Your task to perform on an android device: Open notification settings Image 0: 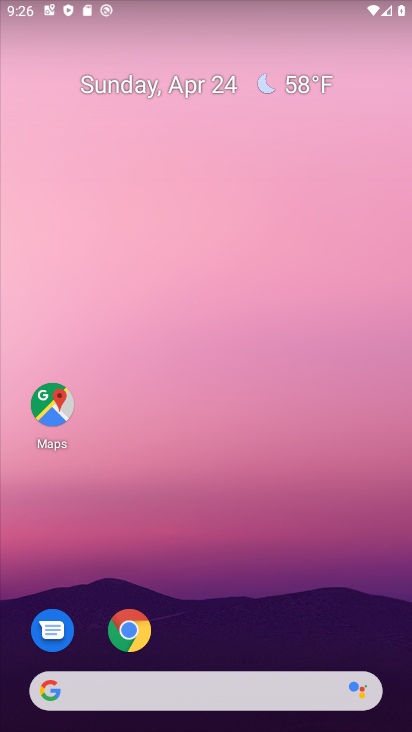
Step 0: drag from (145, 621) to (144, 182)
Your task to perform on an android device: Open notification settings Image 1: 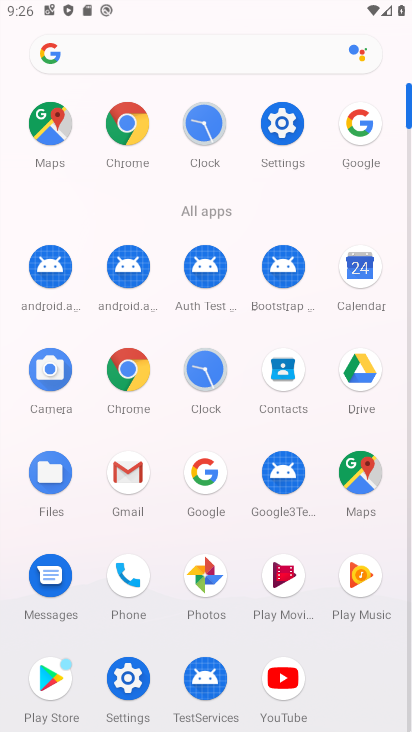
Step 1: click (279, 112)
Your task to perform on an android device: Open notification settings Image 2: 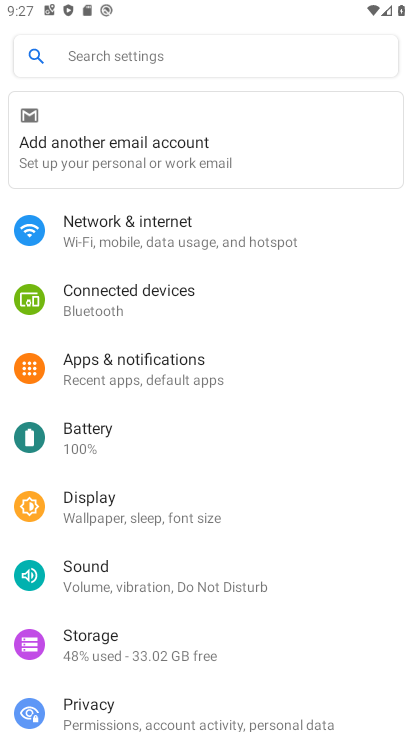
Step 2: drag from (137, 563) to (197, 378)
Your task to perform on an android device: Open notification settings Image 3: 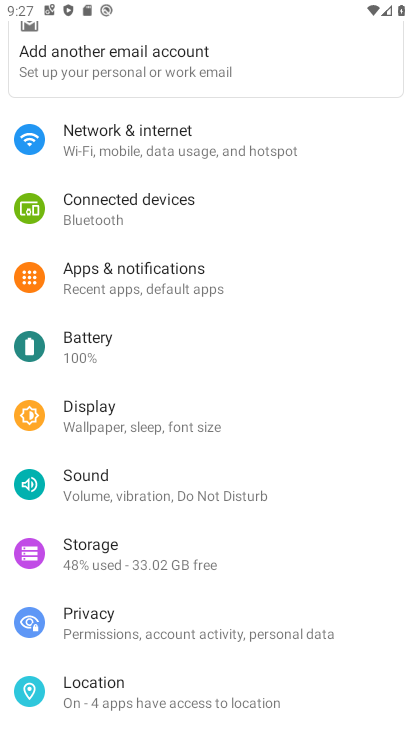
Step 3: click (200, 294)
Your task to perform on an android device: Open notification settings Image 4: 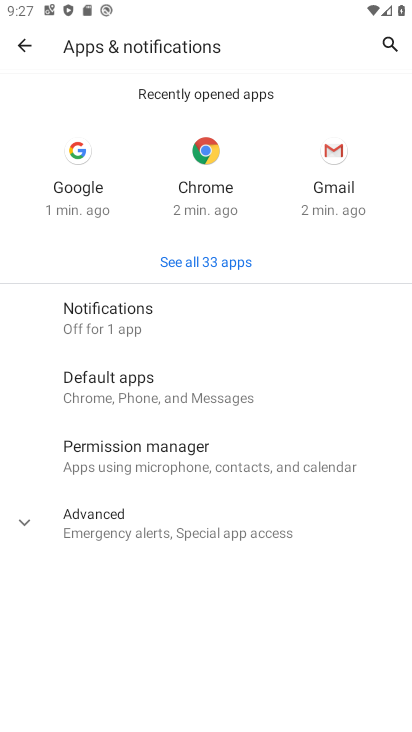
Step 4: click (201, 293)
Your task to perform on an android device: Open notification settings Image 5: 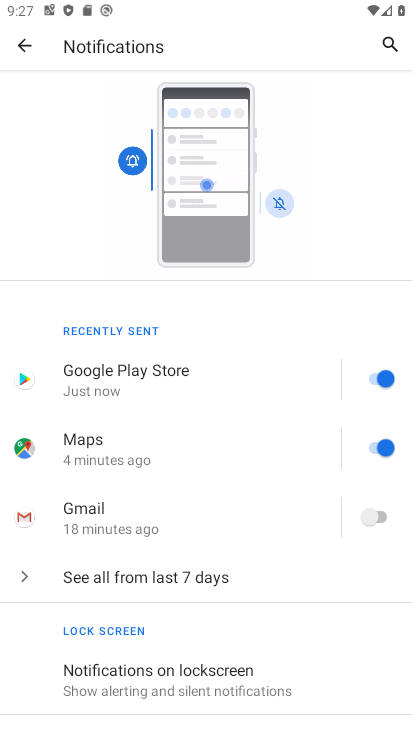
Step 5: task complete